Your task to perform on an android device: Search for Italian restaurants on Maps Image 0: 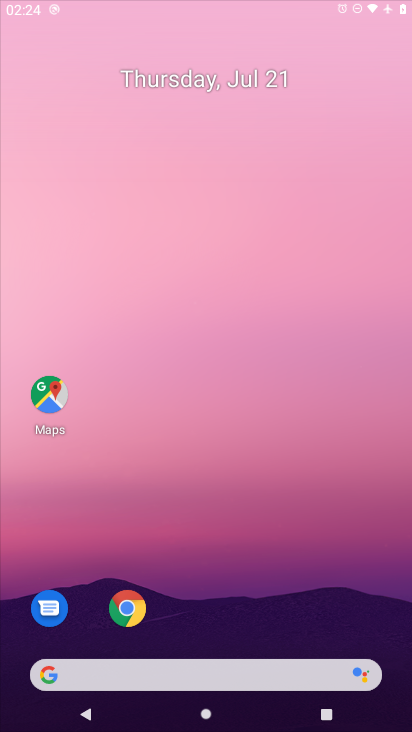
Step 0: press home button
Your task to perform on an android device: Search for Italian restaurants on Maps Image 1: 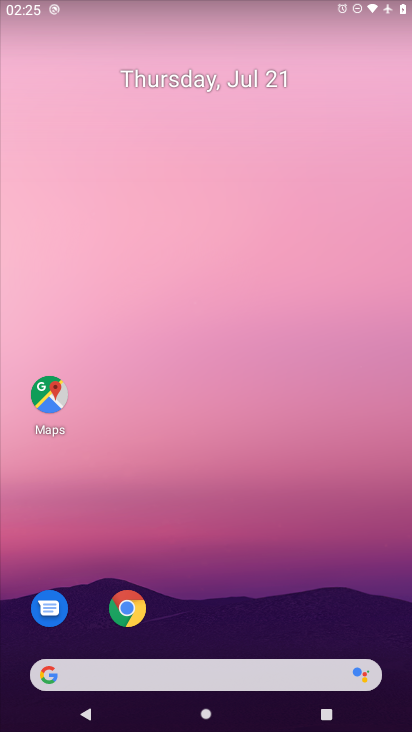
Step 1: drag from (248, 616) to (219, 46)
Your task to perform on an android device: Search for Italian restaurants on Maps Image 2: 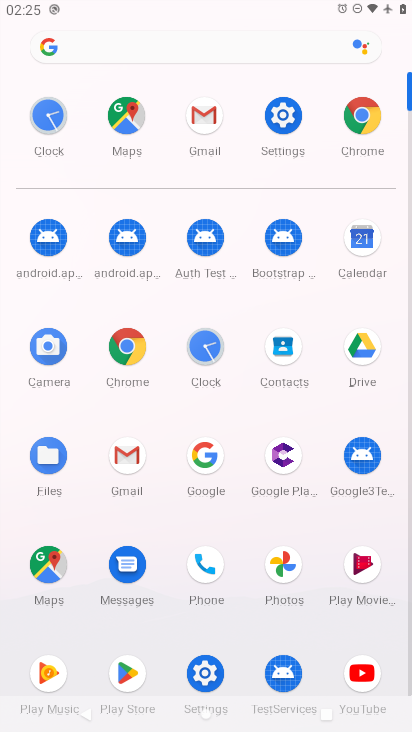
Step 2: click (123, 132)
Your task to perform on an android device: Search for Italian restaurants on Maps Image 3: 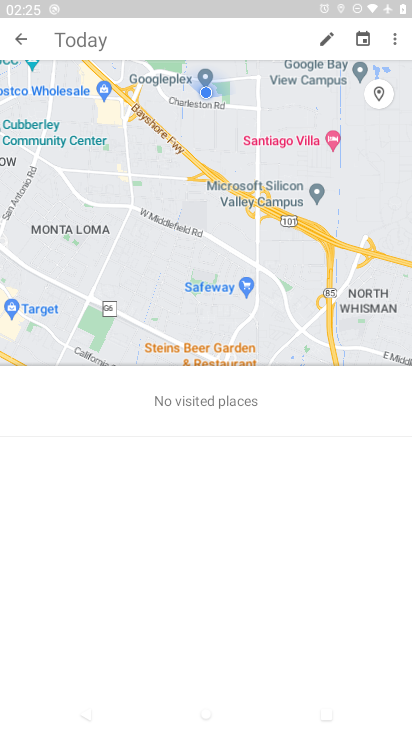
Step 3: click (104, 37)
Your task to perform on an android device: Search for Italian restaurants on Maps Image 4: 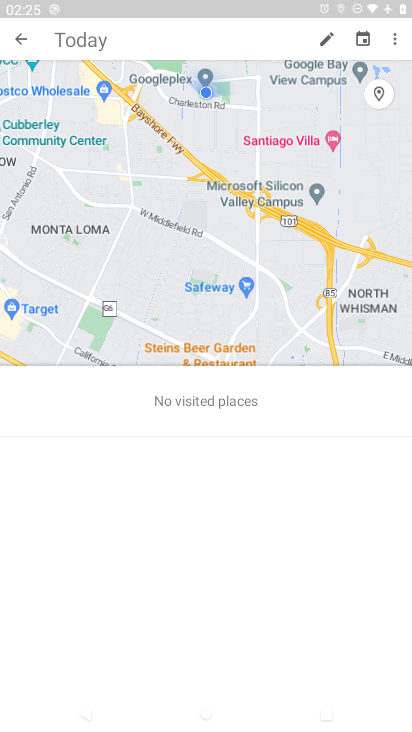
Step 4: click (107, 33)
Your task to perform on an android device: Search for Italian restaurants on Maps Image 5: 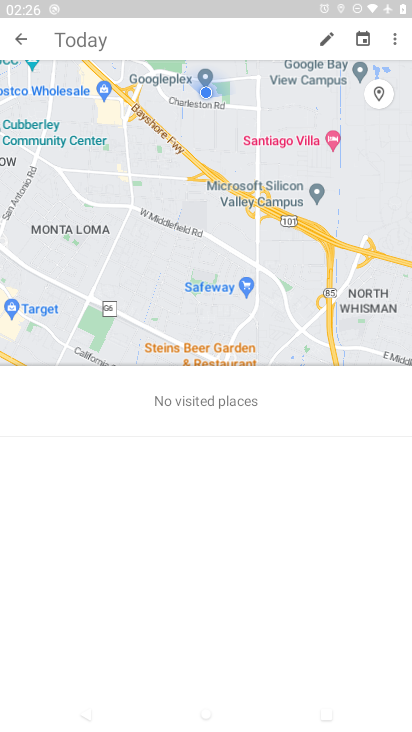
Step 5: click (115, 30)
Your task to perform on an android device: Search for Italian restaurants on Maps Image 6: 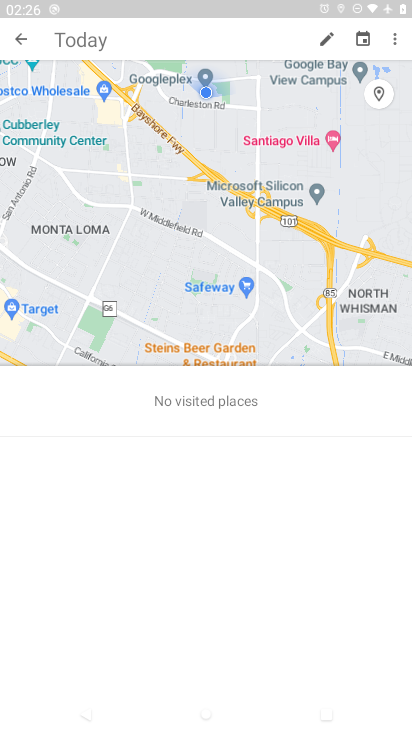
Step 6: click (91, 44)
Your task to perform on an android device: Search for Italian restaurants on Maps Image 7: 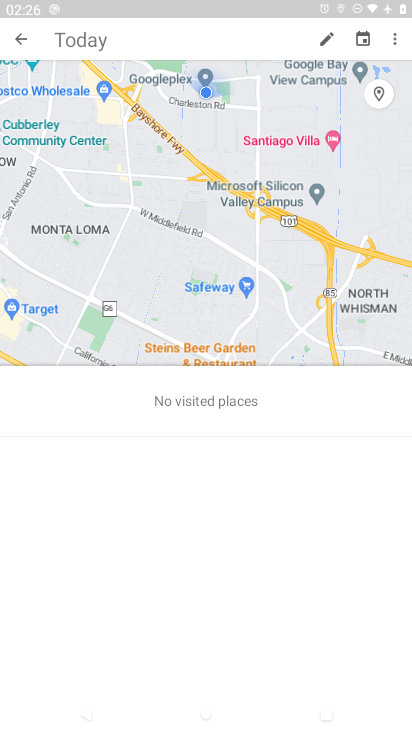
Step 7: click (21, 40)
Your task to perform on an android device: Search for Italian restaurants on Maps Image 8: 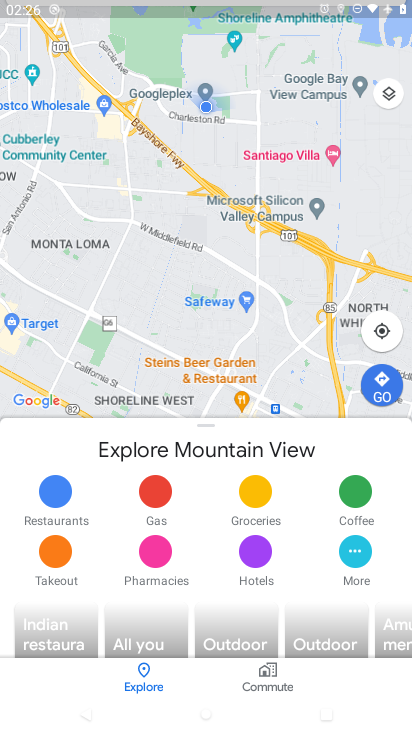
Step 8: click (125, 48)
Your task to perform on an android device: Search for Italian restaurants on Maps Image 9: 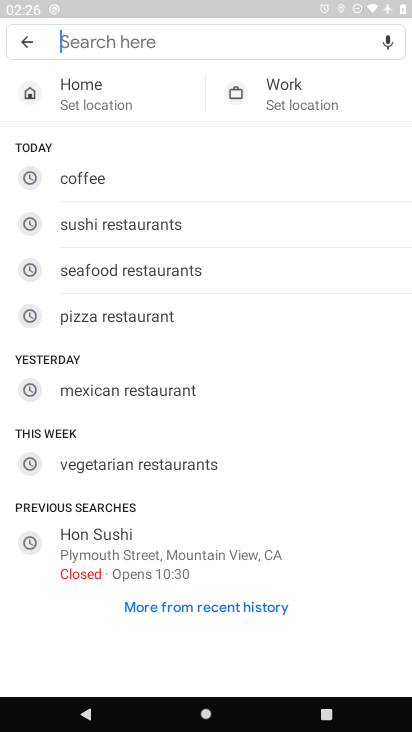
Step 9: click (122, 37)
Your task to perform on an android device: Search for Italian restaurants on Maps Image 10: 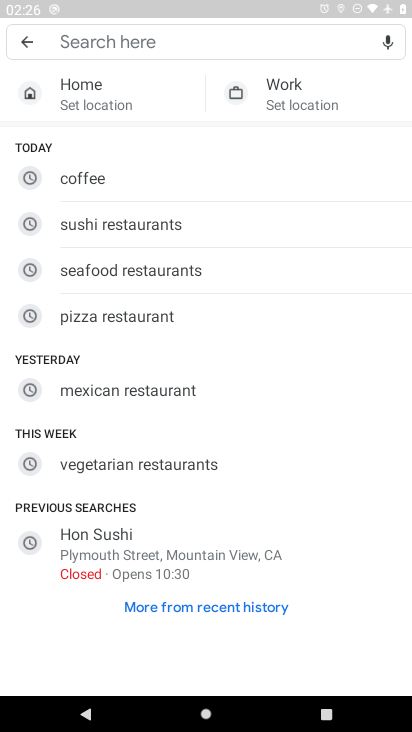
Step 10: type "Italian restaurants"
Your task to perform on an android device: Search for Italian restaurants on Maps Image 11: 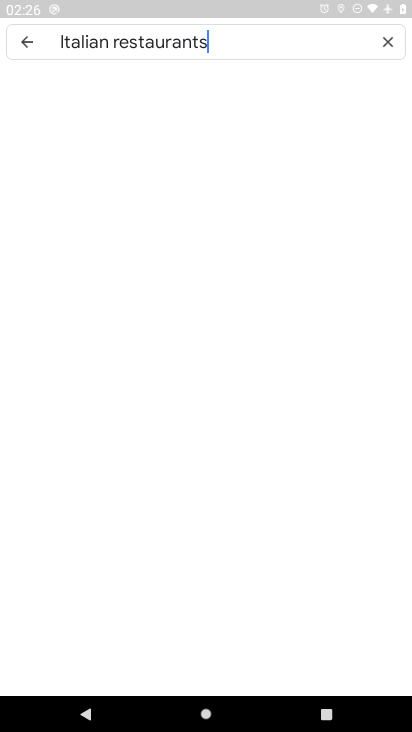
Step 11: press enter
Your task to perform on an android device: Search for Italian restaurants on Maps Image 12: 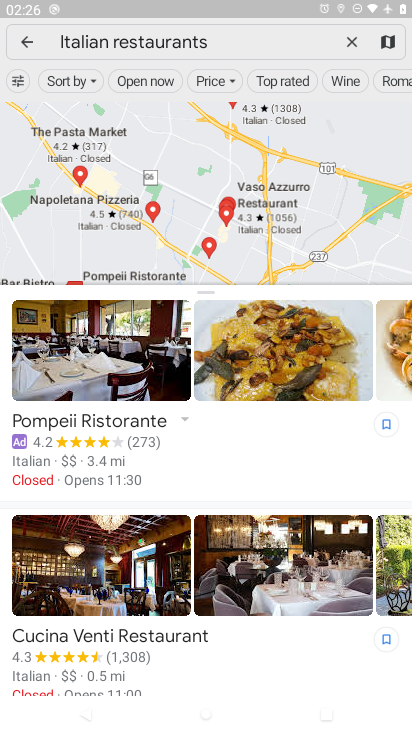
Step 12: task complete